Your task to perform on an android device: make emails show in primary in the gmail app Image 0: 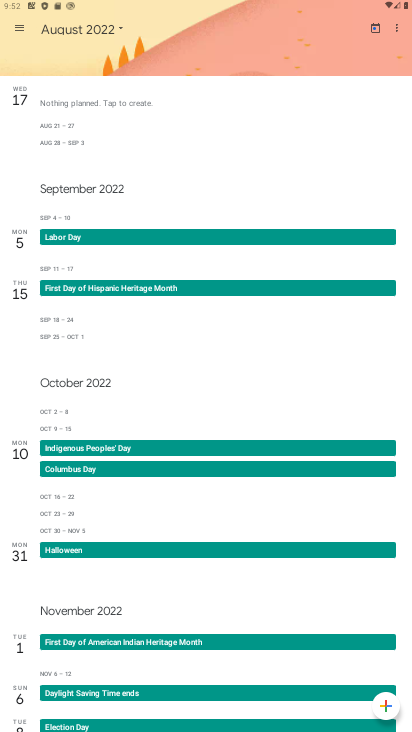
Step 0: press home button
Your task to perform on an android device: make emails show in primary in the gmail app Image 1: 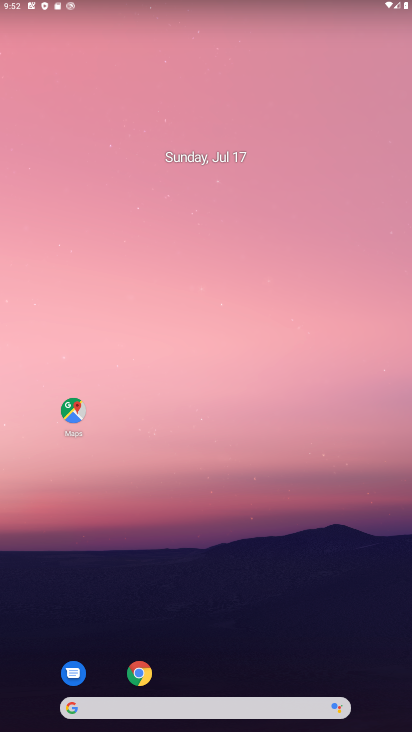
Step 1: drag from (268, 685) to (266, 112)
Your task to perform on an android device: make emails show in primary in the gmail app Image 2: 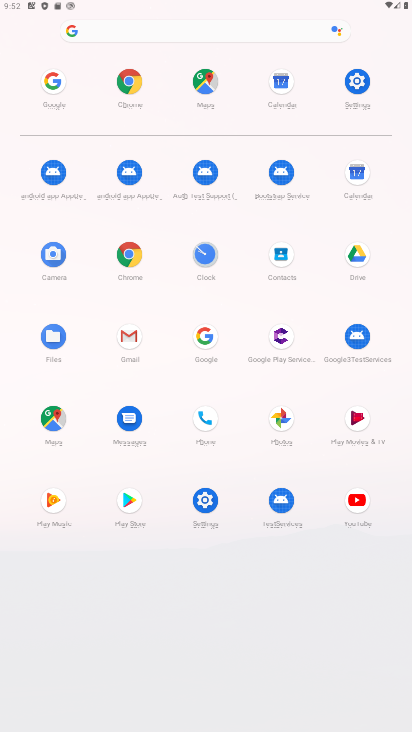
Step 2: click (131, 332)
Your task to perform on an android device: make emails show in primary in the gmail app Image 3: 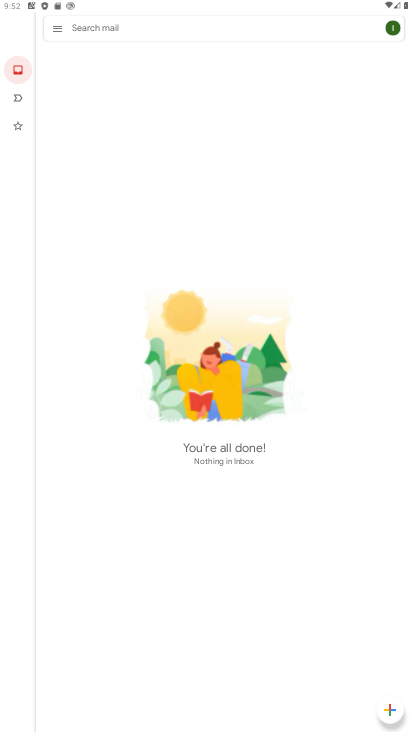
Step 3: click (53, 27)
Your task to perform on an android device: make emails show in primary in the gmail app Image 4: 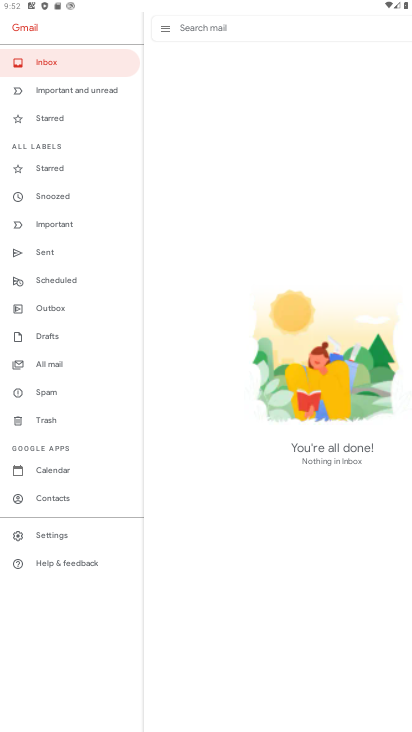
Step 4: task complete